Your task to perform on an android device: turn off picture-in-picture Image 0: 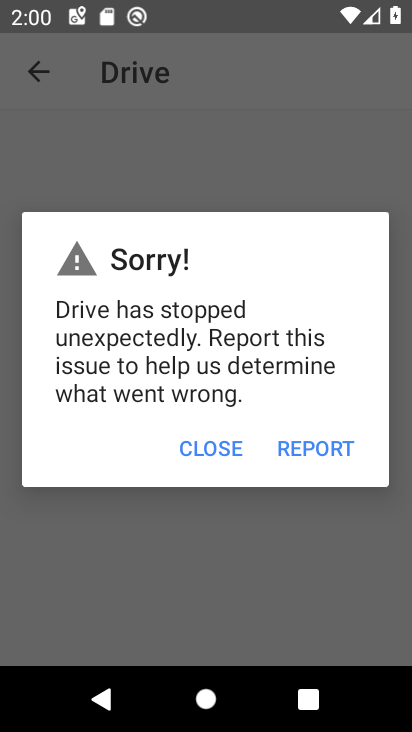
Step 0: press home button
Your task to perform on an android device: turn off picture-in-picture Image 1: 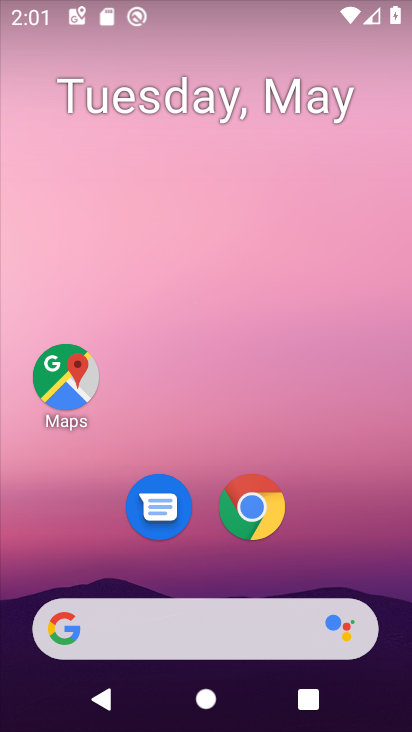
Step 1: click (242, 527)
Your task to perform on an android device: turn off picture-in-picture Image 2: 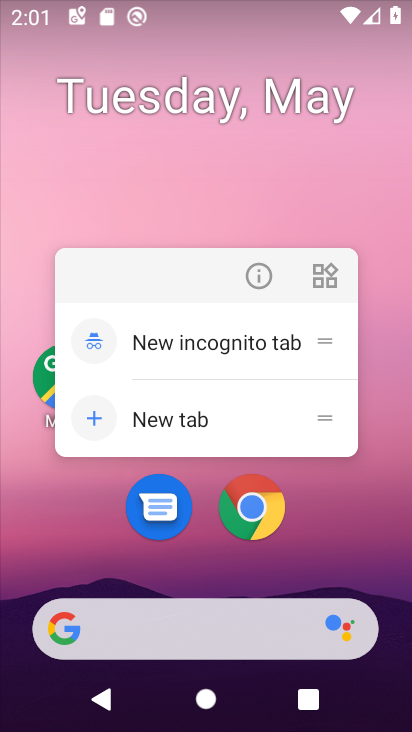
Step 2: click (269, 279)
Your task to perform on an android device: turn off picture-in-picture Image 3: 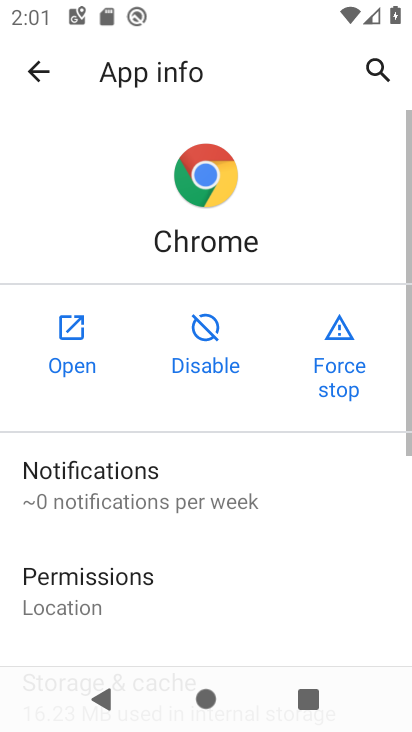
Step 3: drag from (239, 622) to (247, 283)
Your task to perform on an android device: turn off picture-in-picture Image 4: 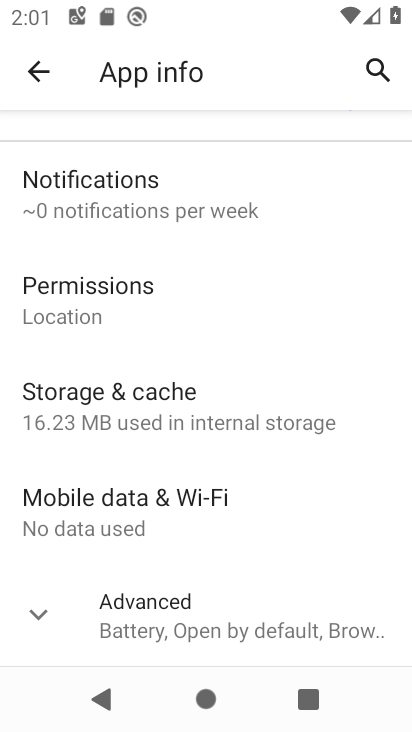
Step 4: drag from (205, 538) to (215, 360)
Your task to perform on an android device: turn off picture-in-picture Image 5: 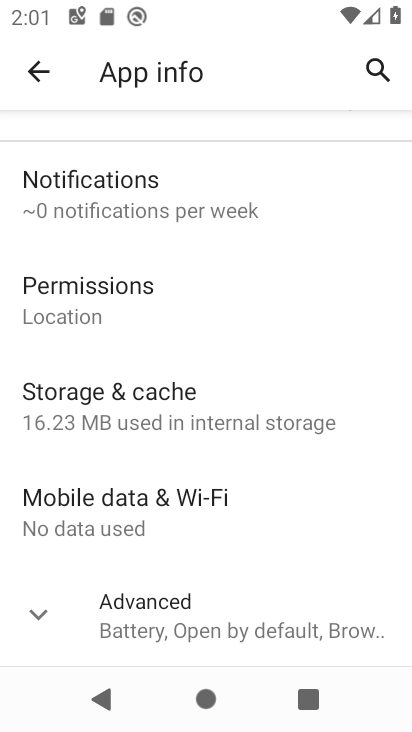
Step 5: click (213, 625)
Your task to perform on an android device: turn off picture-in-picture Image 6: 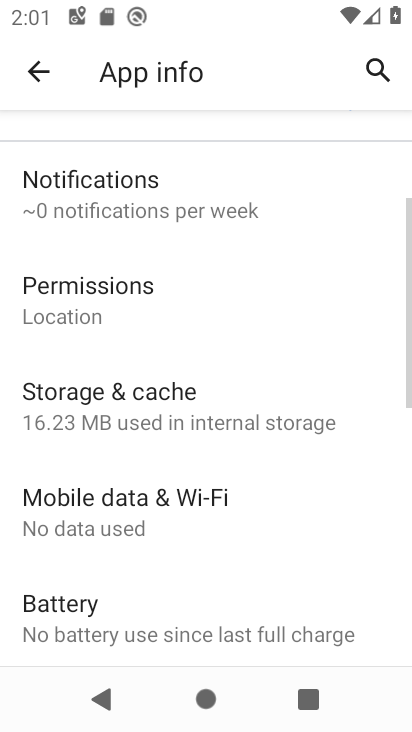
Step 6: drag from (228, 627) to (284, 320)
Your task to perform on an android device: turn off picture-in-picture Image 7: 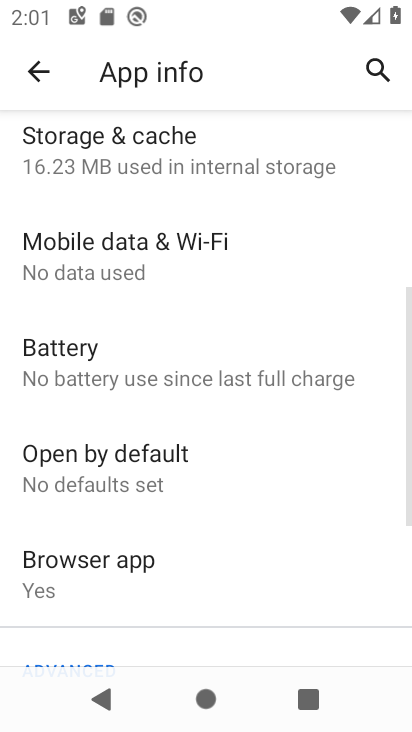
Step 7: drag from (235, 534) to (249, 352)
Your task to perform on an android device: turn off picture-in-picture Image 8: 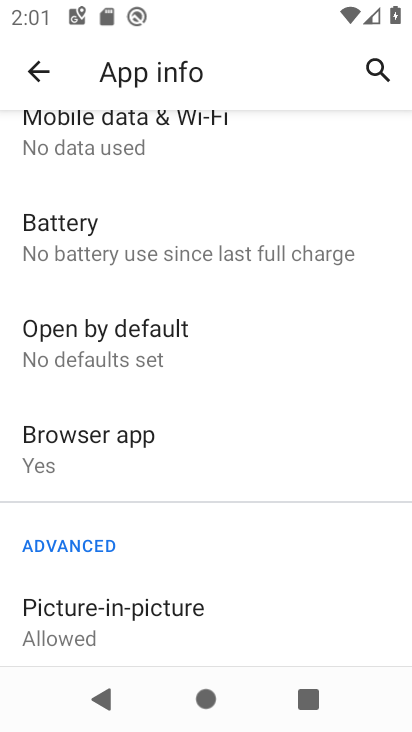
Step 8: click (220, 601)
Your task to perform on an android device: turn off picture-in-picture Image 9: 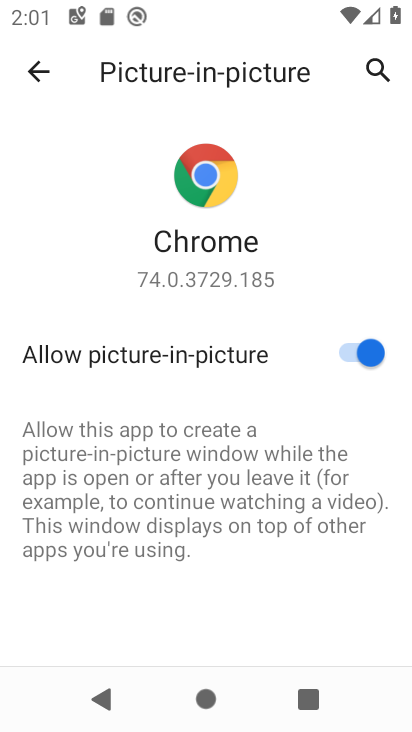
Step 9: click (342, 347)
Your task to perform on an android device: turn off picture-in-picture Image 10: 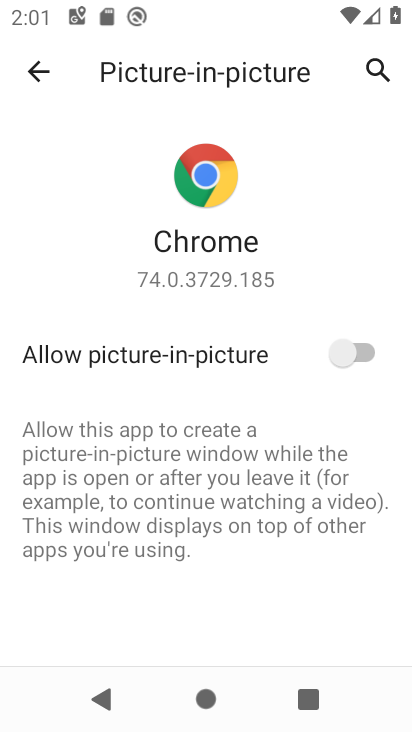
Step 10: task complete